Your task to perform on an android device: turn off airplane mode Image 0: 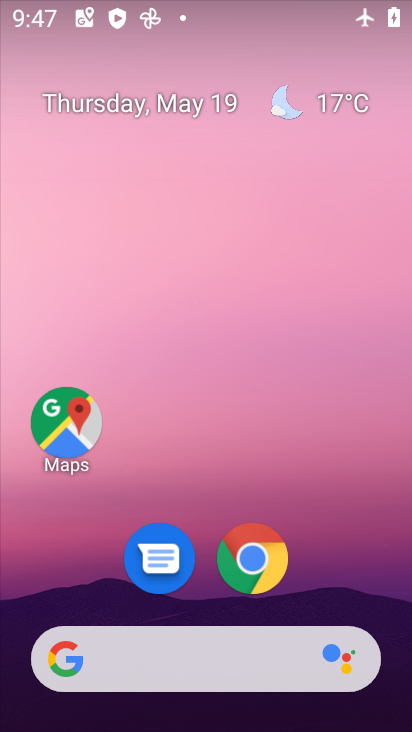
Step 0: drag from (218, 725) to (228, 64)
Your task to perform on an android device: turn off airplane mode Image 1: 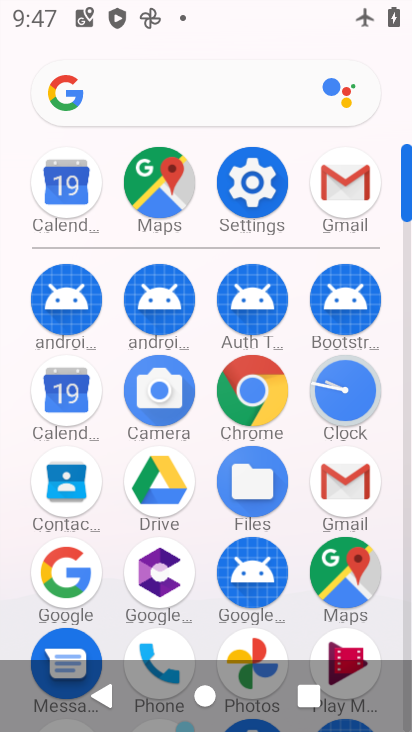
Step 1: click (246, 180)
Your task to perform on an android device: turn off airplane mode Image 2: 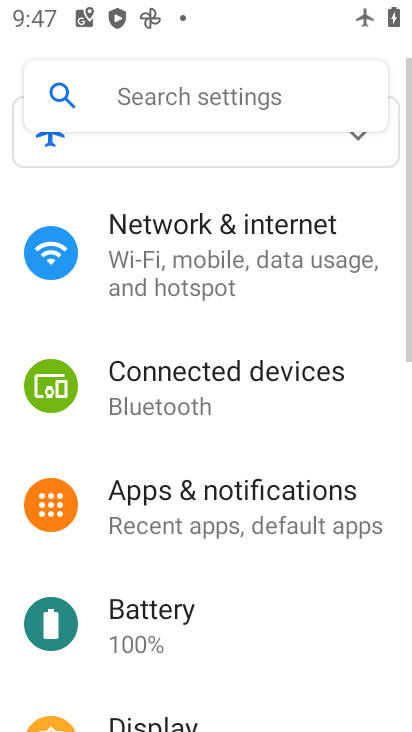
Step 2: click (240, 247)
Your task to perform on an android device: turn off airplane mode Image 3: 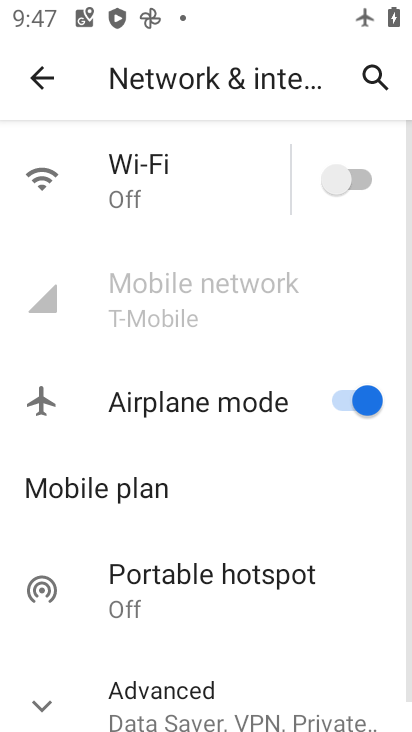
Step 3: click (336, 401)
Your task to perform on an android device: turn off airplane mode Image 4: 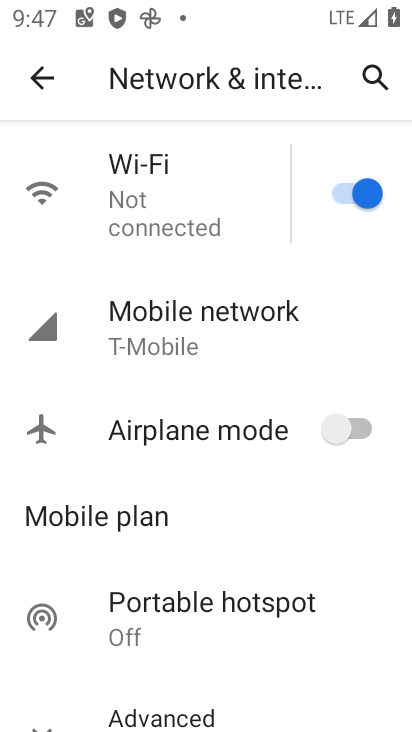
Step 4: task complete